Your task to perform on an android device: Go to settings Image 0: 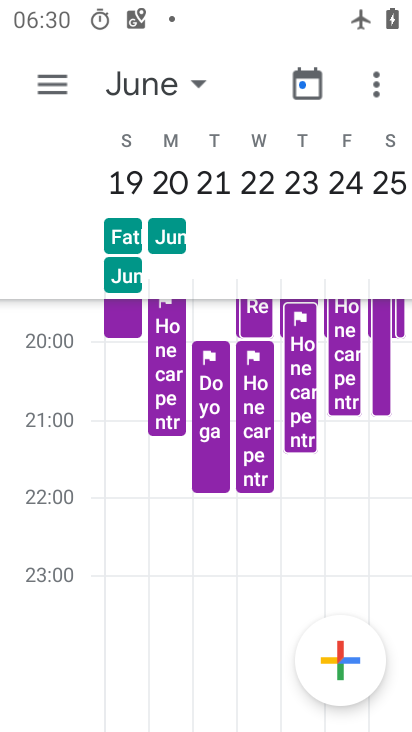
Step 0: press home button
Your task to perform on an android device: Go to settings Image 1: 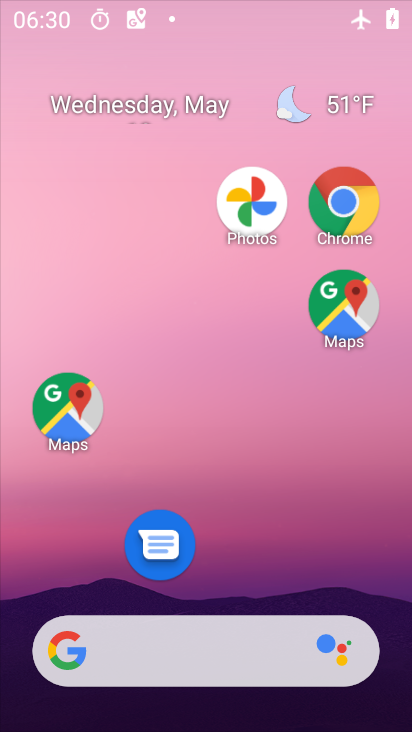
Step 1: drag from (246, 317) to (265, 147)
Your task to perform on an android device: Go to settings Image 2: 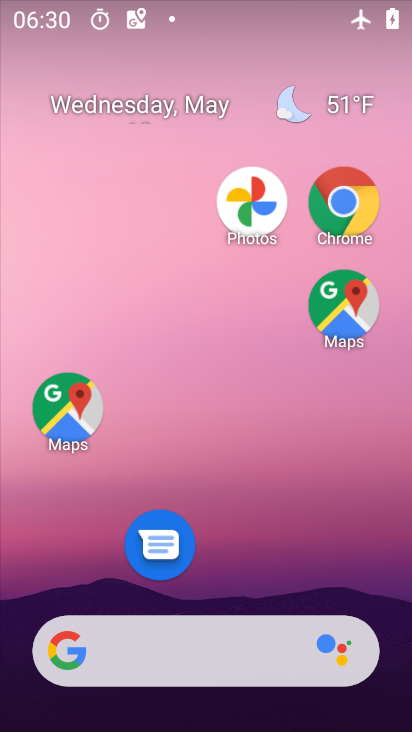
Step 2: drag from (226, 451) to (211, 72)
Your task to perform on an android device: Go to settings Image 3: 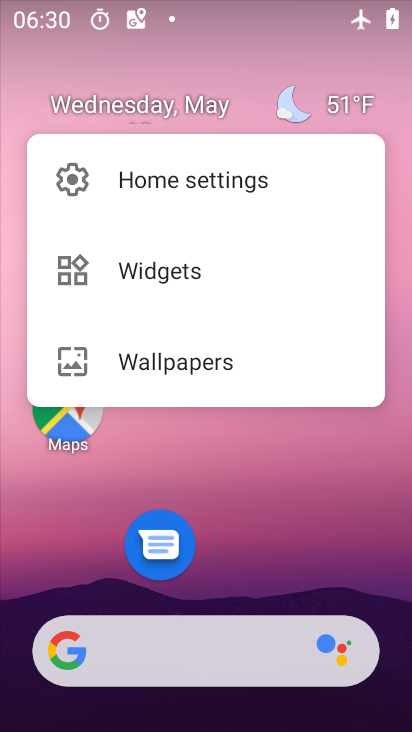
Step 3: click (186, 495)
Your task to perform on an android device: Go to settings Image 4: 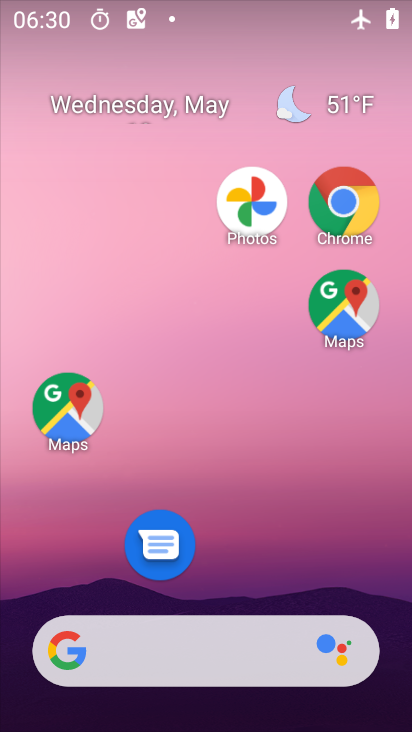
Step 4: drag from (226, 503) to (227, 77)
Your task to perform on an android device: Go to settings Image 5: 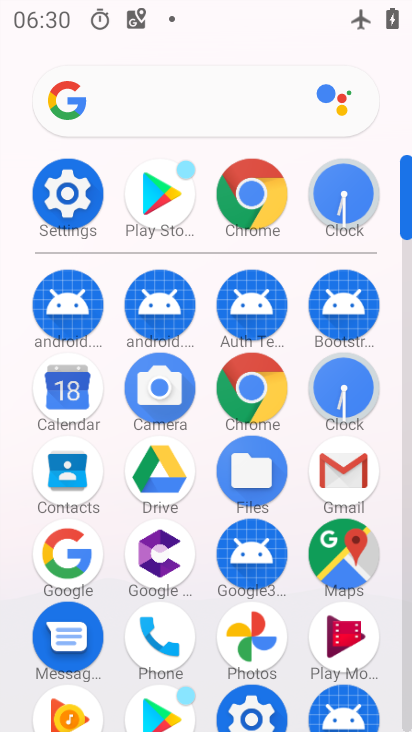
Step 5: click (68, 182)
Your task to perform on an android device: Go to settings Image 6: 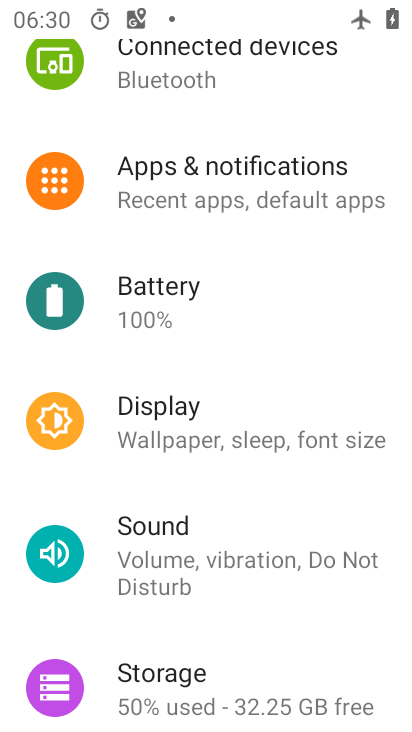
Step 6: task complete